Your task to perform on an android device: turn on improve location accuracy Image 0: 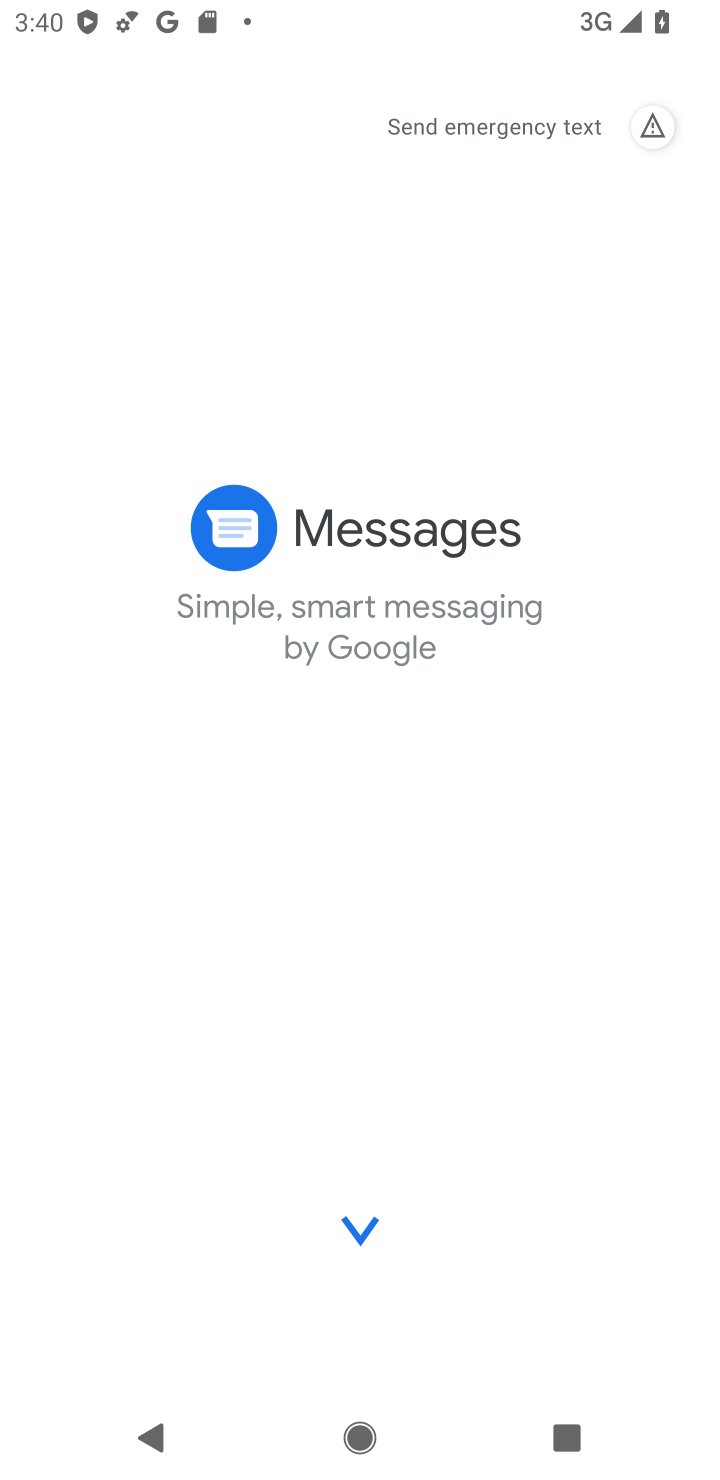
Step 0: press home button
Your task to perform on an android device: turn on improve location accuracy Image 1: 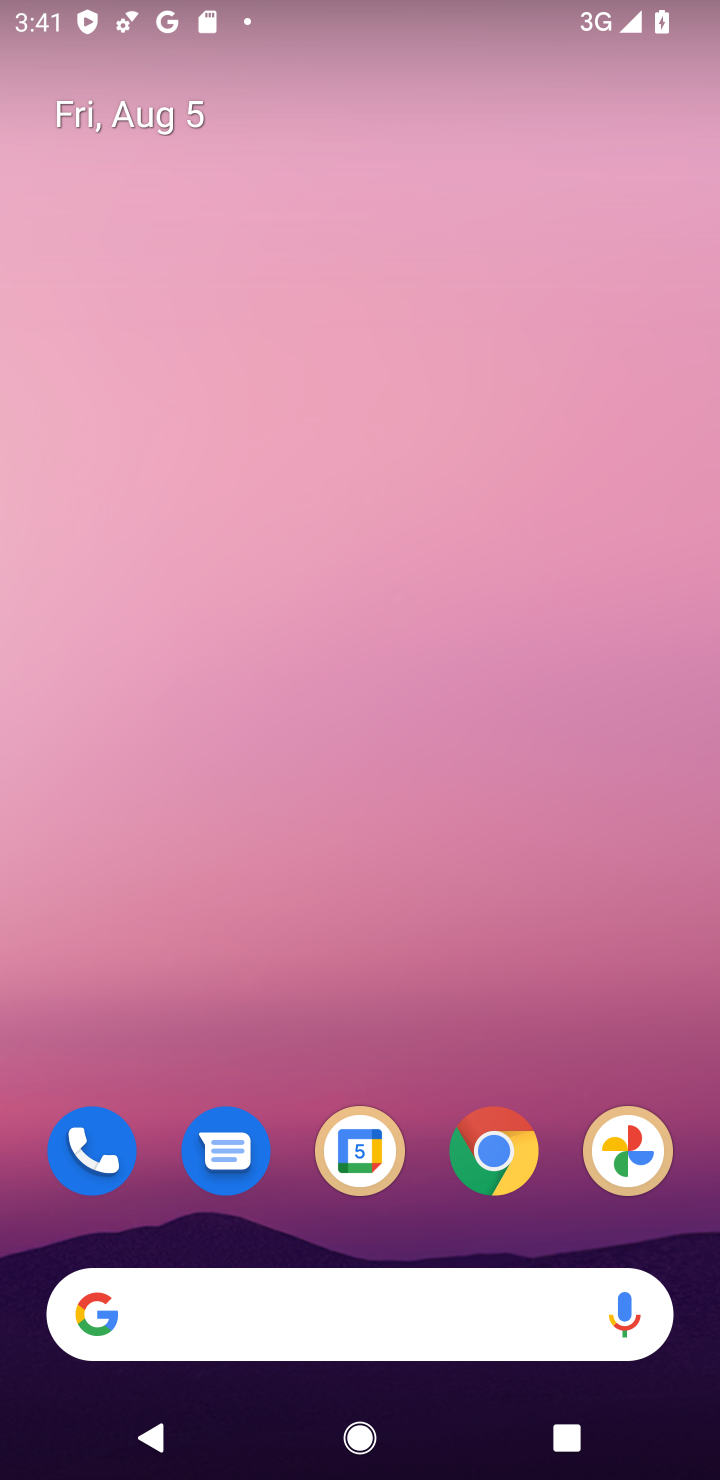
Step 1: drag from (398, 1083) to (408, 6)
Your task to perform on an android device: turn on improve location accuracy Image 2: 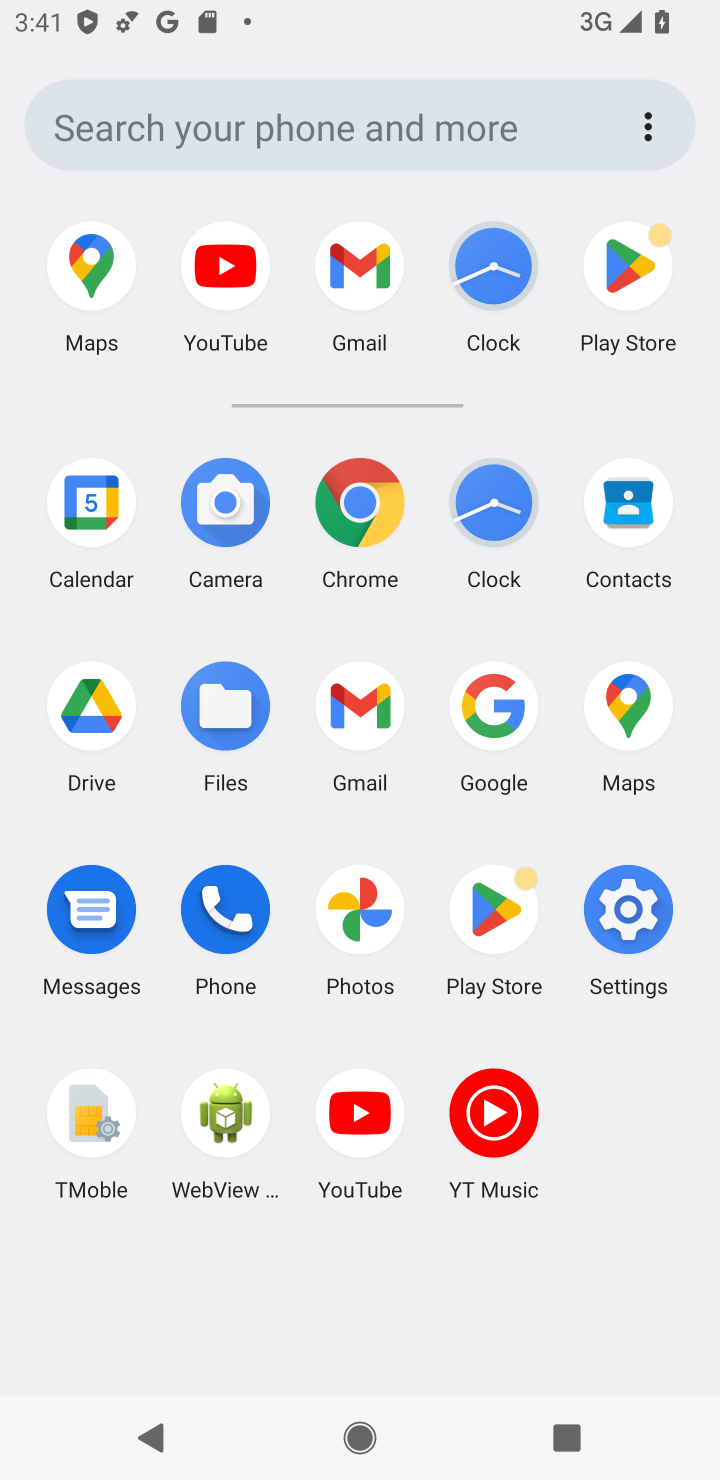
Step 2: click (612, 888)
Your task to perform on an android device: turn on improve location accuracy Image 3: 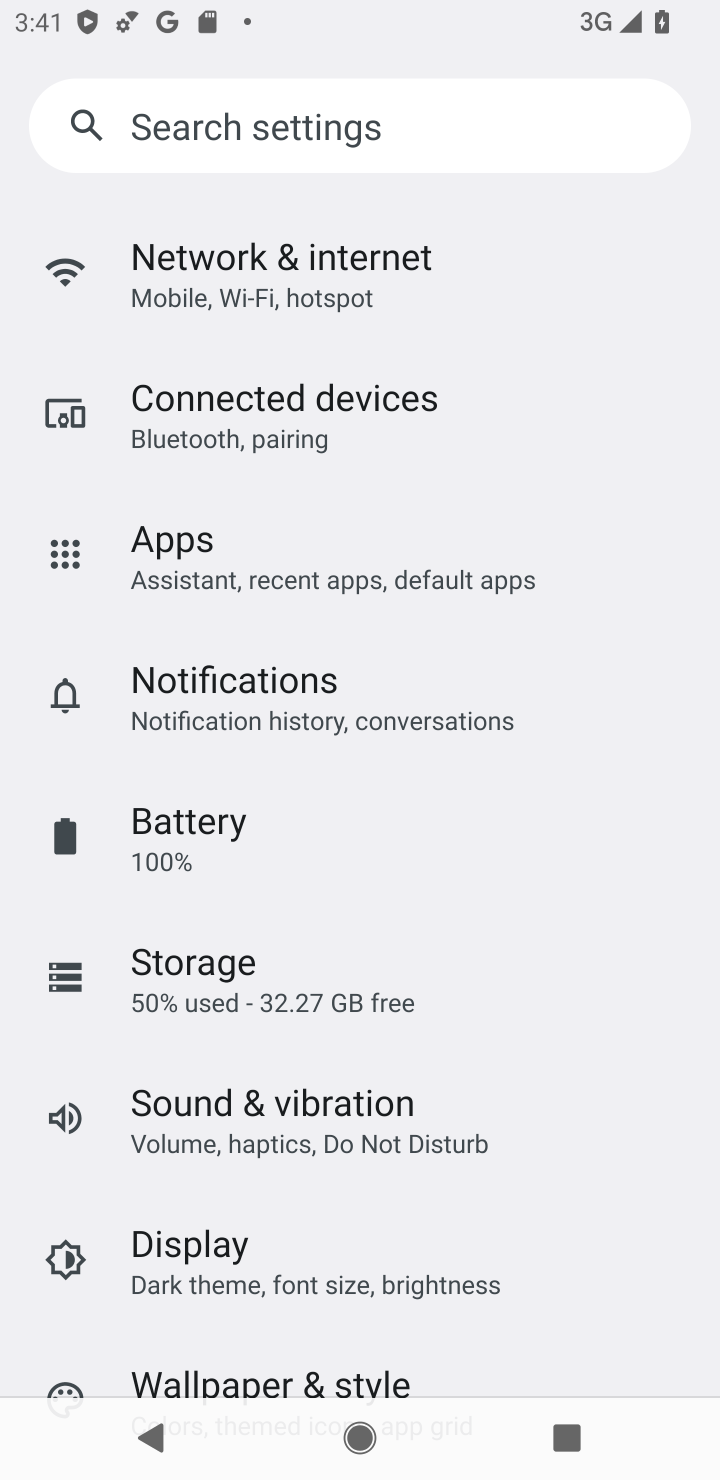
Step 3: drag from (152, 920) to (83, 303)
Your task to perform on an android device: turn on improve location accuracy Image 4: 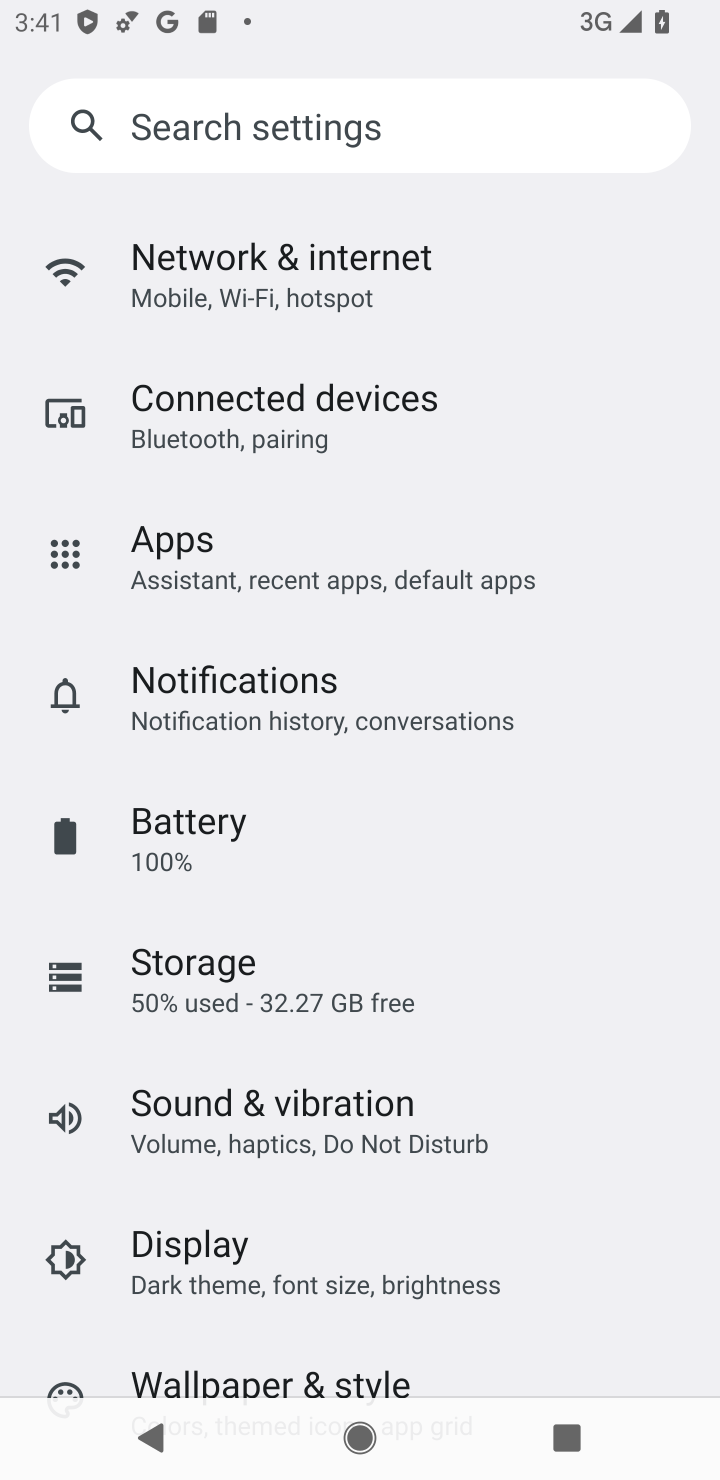
Step 4: drag from (241, 1254) to (241, 327)
Your task to perform on an android device: turn on improve location accuracy Image 5: 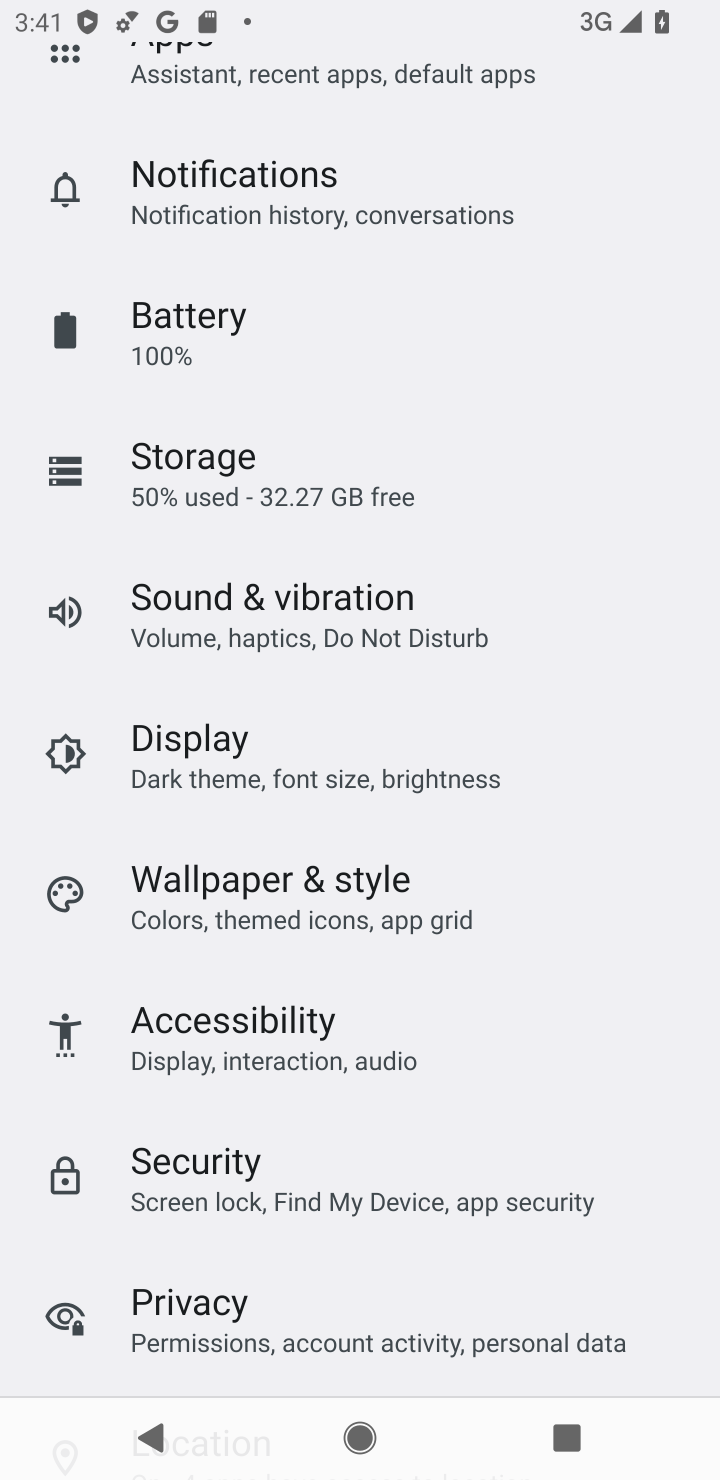
Step 5: drag from (308, 1262) to (261, 545)
Your task to perform on an android device: turn on improve location accuracy Image 6: 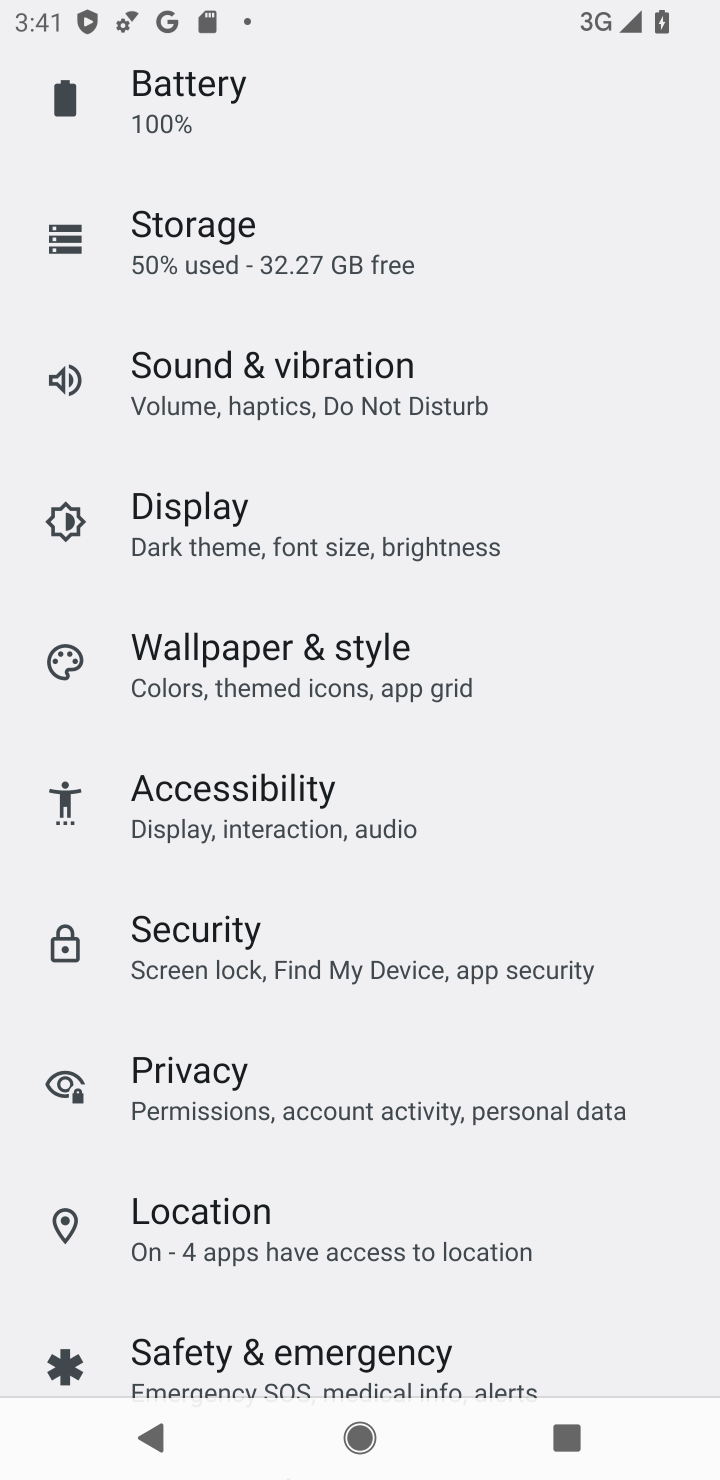
Step 6: click (311, 1227)
Your task to perform on an android device: turn on improve location accuracy Image 7: 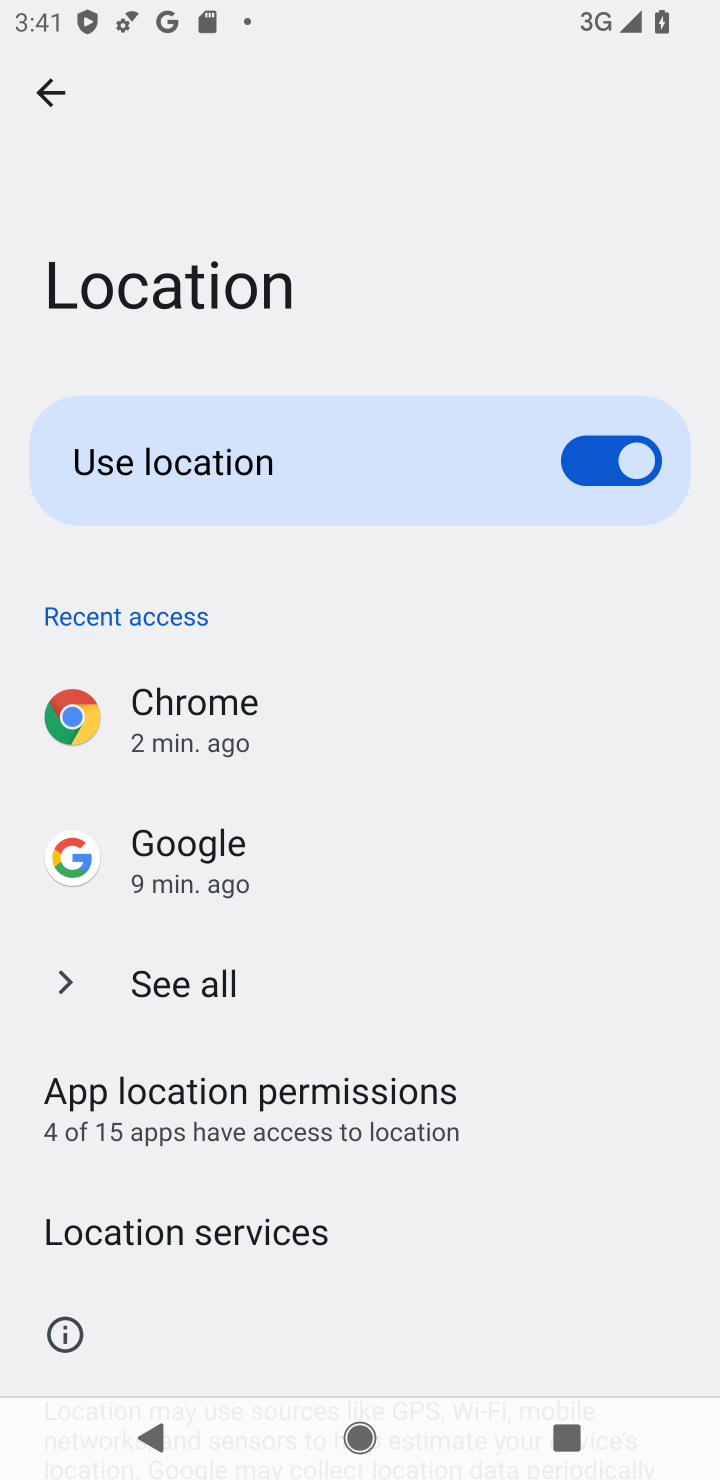
Step 7: drag from (384, 1136) to (344, 424)
Your task to perform on an android device: turn on improve location accuracy Image 8: 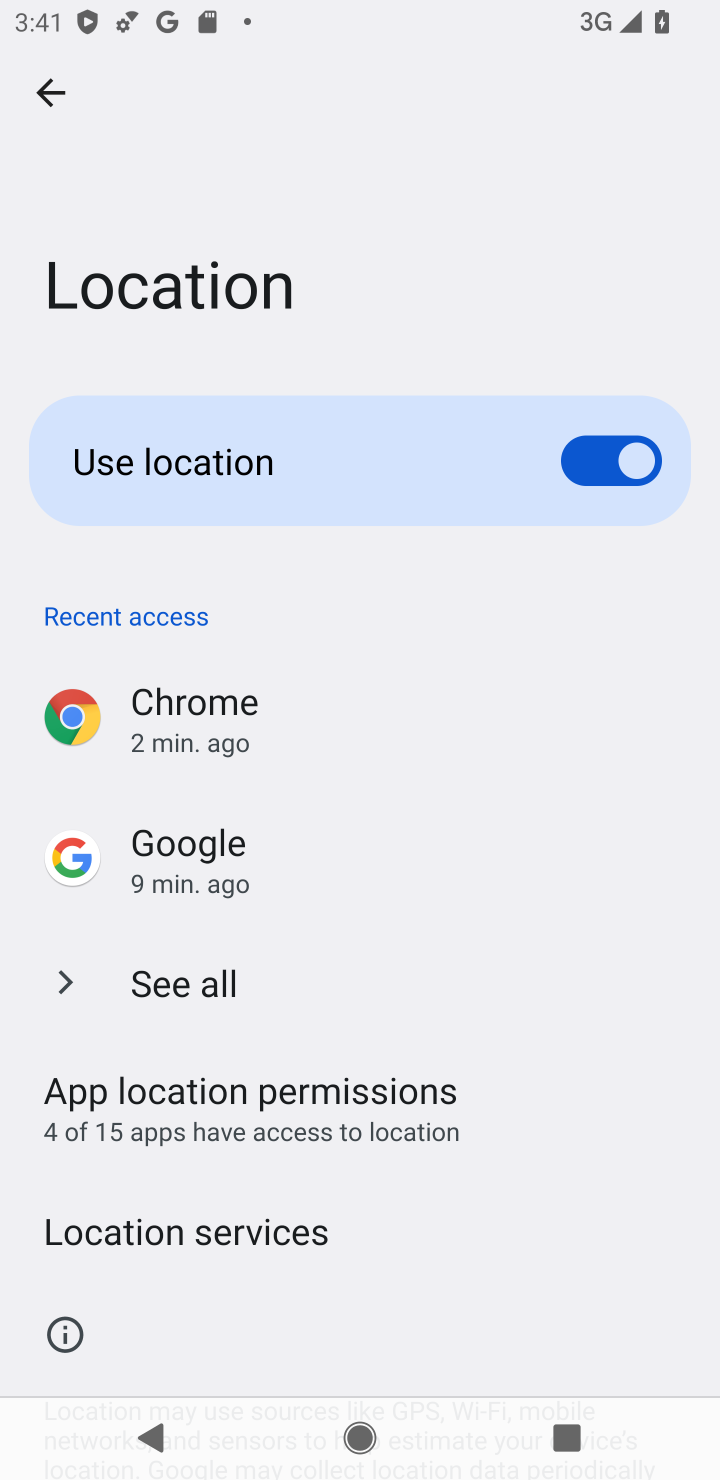
Step 8: click (279, 1222)
Your task to perform on an android device: turn on improve location accuracy Image 9: 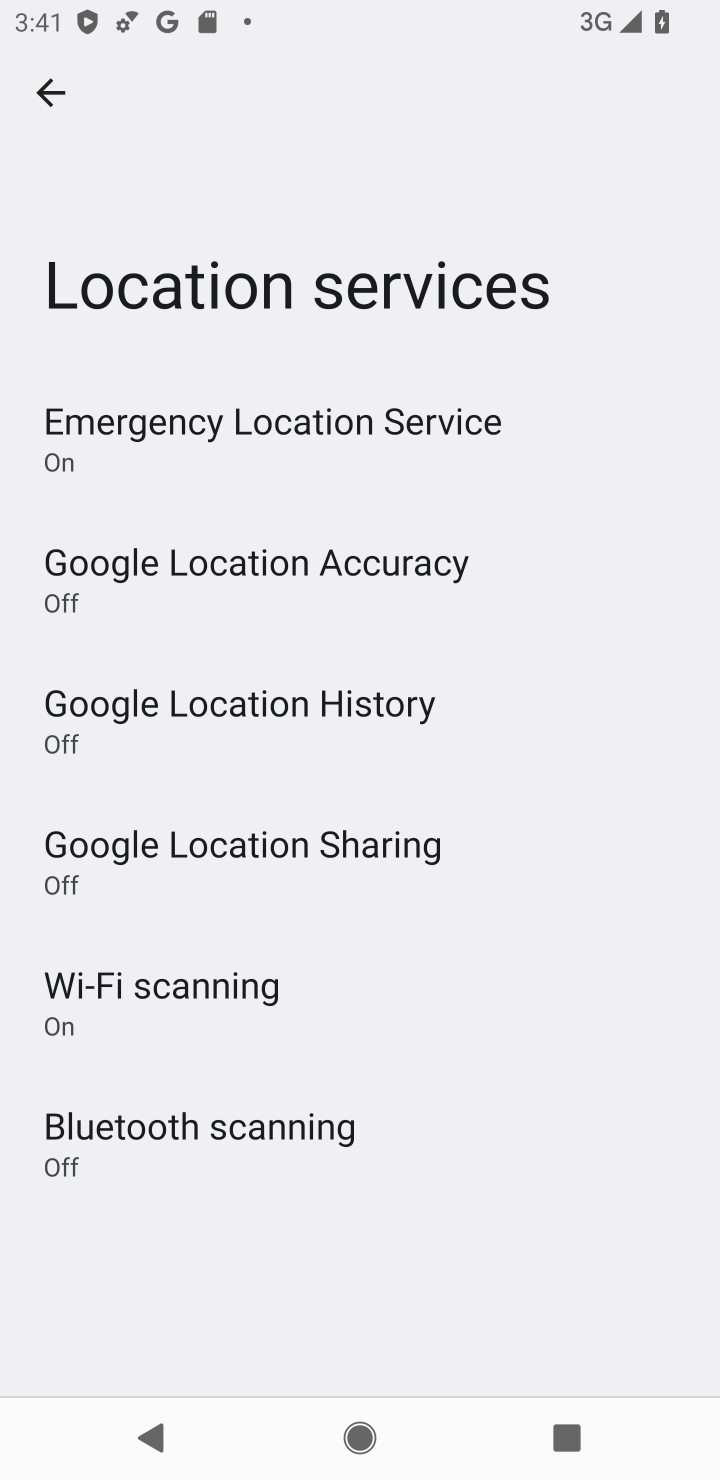
Step 9: click (374, 592)
Your task to perform on an android device: turn on improve location accuracy Image 10: 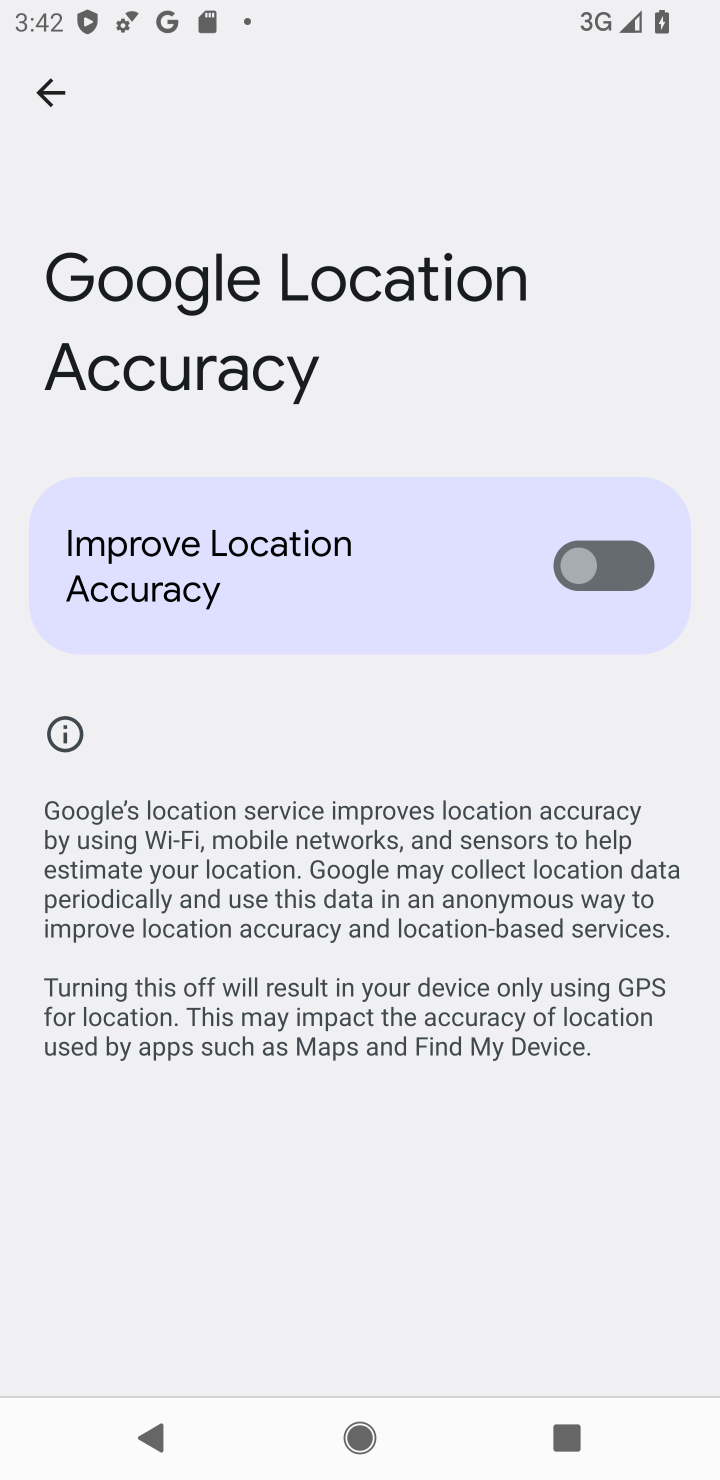
Step 10: click (615, 581)
Your task to perform on an android device: turn on improve location accuracy Image 11: 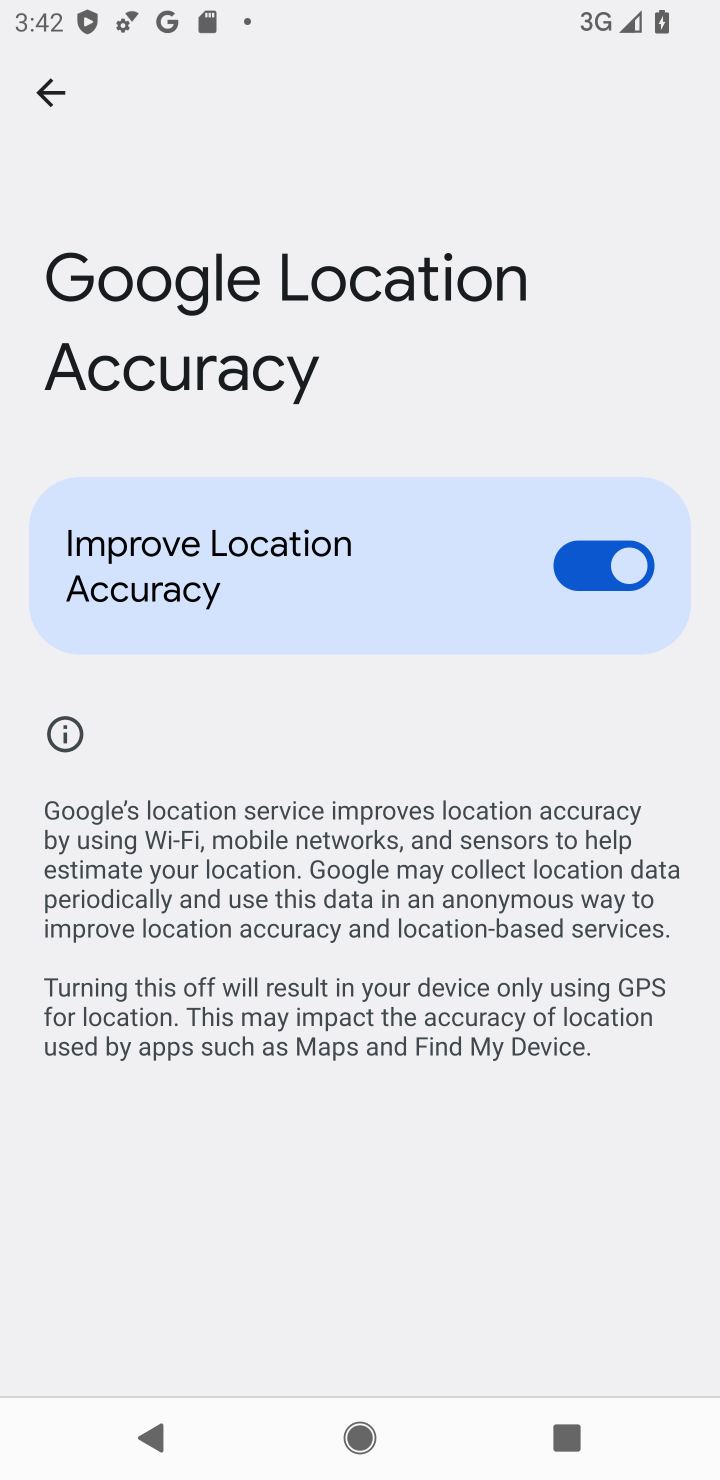
Step 11: task complete